Your task to perform on an android device: Turn on the flashlight Image 0: 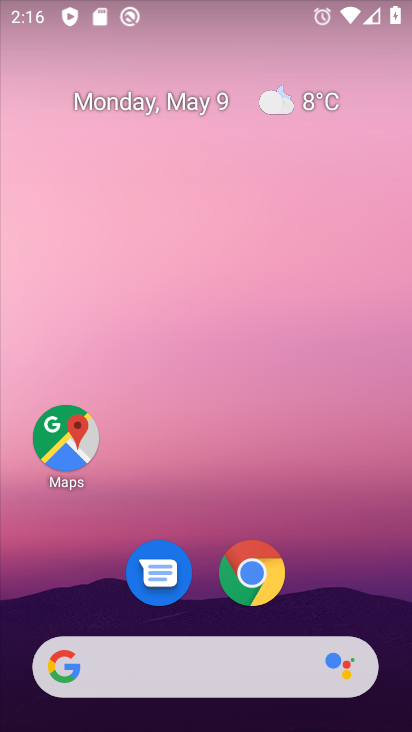
Step 0: drag from (271, 4) to (167, 474)
Your task to perform on an android device: Turn on the flashlight Image 1: 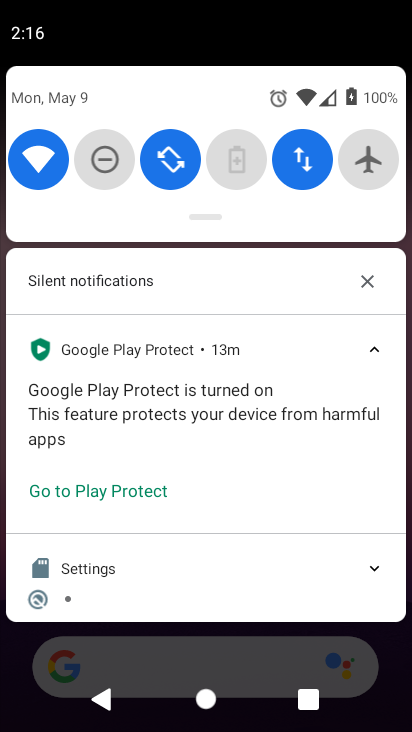
Step 1: task complete